Your task to perform on an android device: check storage Image 0: 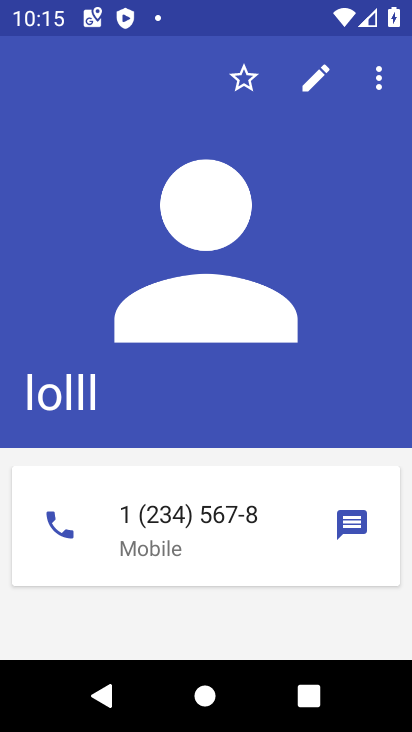
Step 0: press home button
Your task to perform on an android device: check storage Image 1: 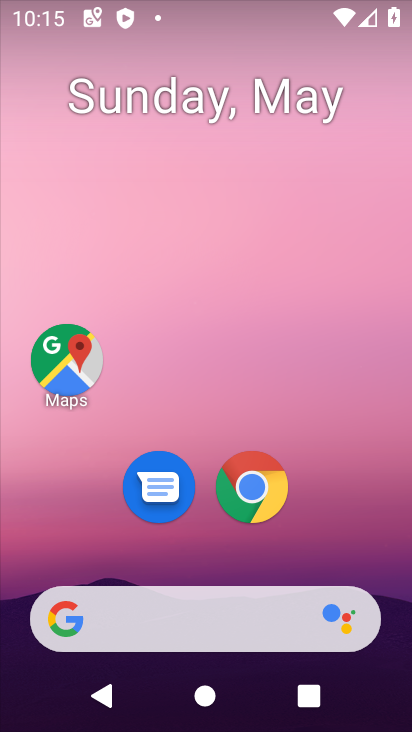
Step 1: drag from (351, 500) to (335, 186)
Your task to perform on an android device: check storage Image 2: 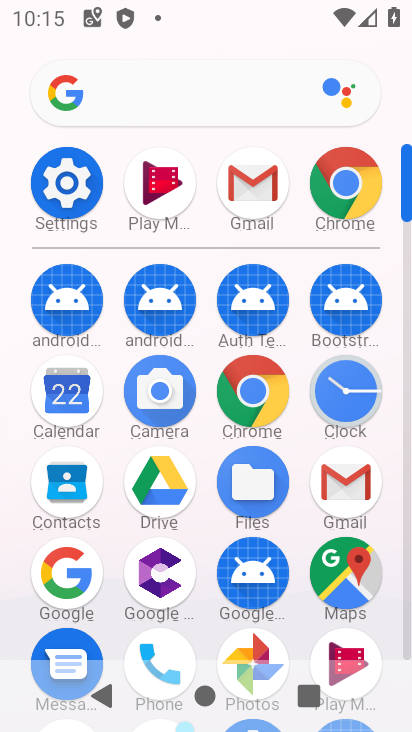
Step 2: click (54, 189)
Your task to perform on an android device: check storage Image 3: 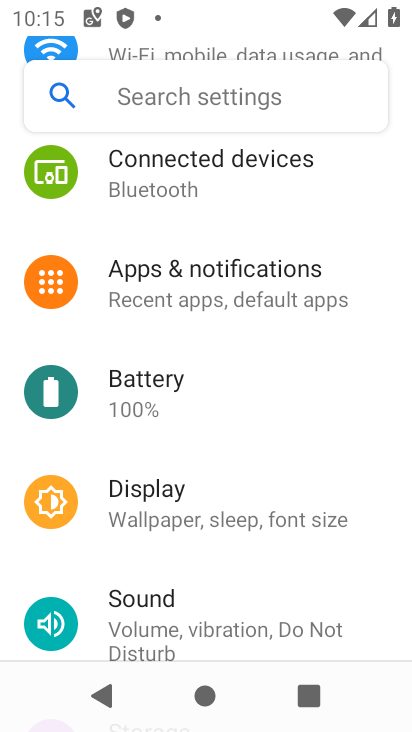
Step 3: drag from (375, 577) to (377, 372)
Your task to perform on an android device: check storage Image 4: 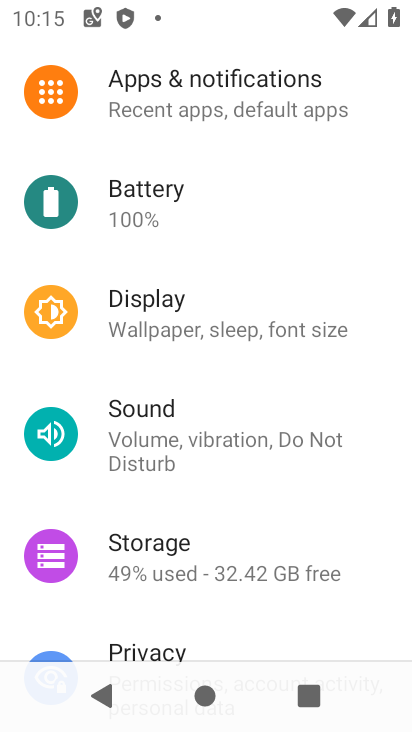
Step 4: drag from (381, 505) to (382, 310)
Your task to perform on an android device: check storage Image 5: 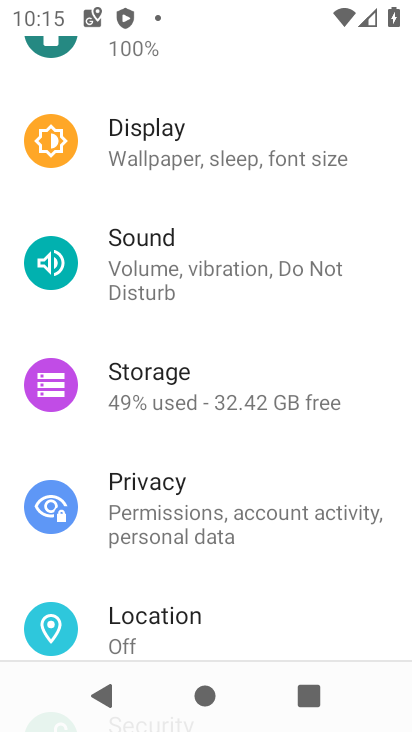
Step 5: drag from (377, 557) to (377, 372)
Your task to perform on an android device: check storage Image 6: 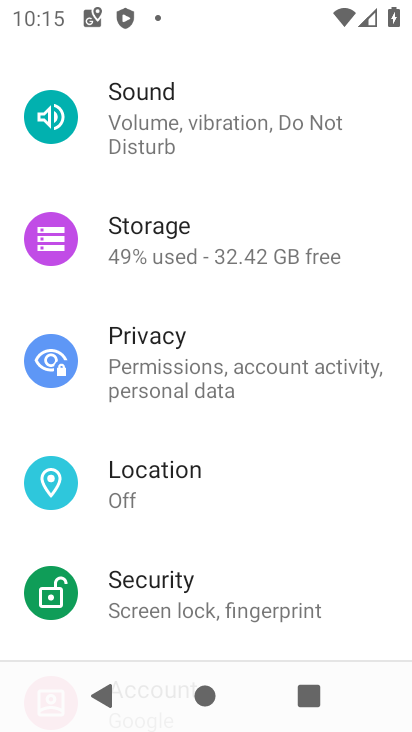
Step 6: drag from (370, 527) to (367, 352)
Your task to perform on an android device: check storage Image 7: 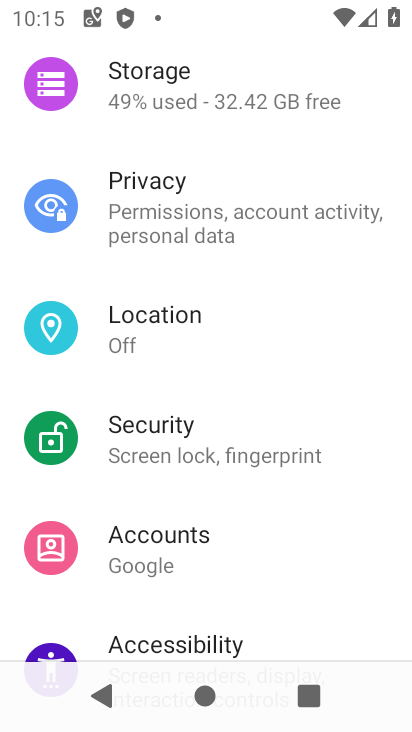
Step 7: drag from (366, 574) to (376, 401)
Your task to perform on an android device: check storage Image 8: 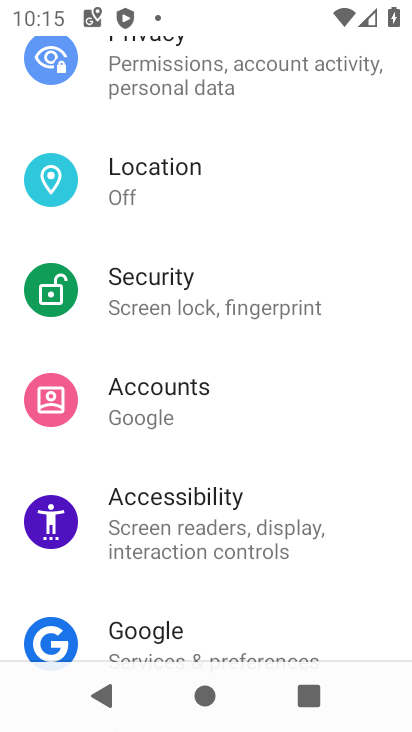
Step 8: drag from (332, 525) to (352, 337)
Your task to perform on an android device: check storage Image 9: 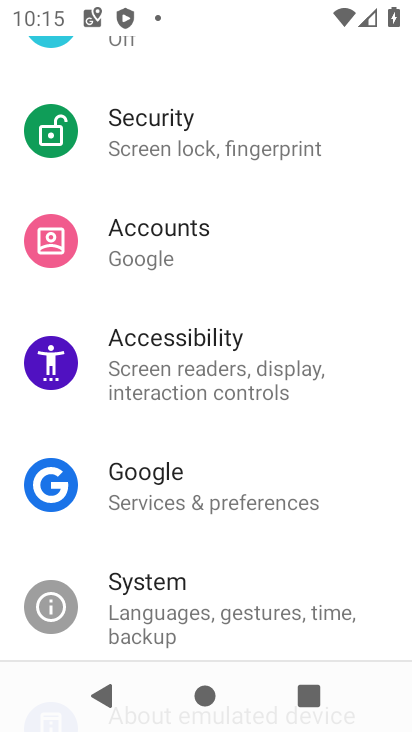
Step 9: drag from (311, 540) to (346, 297)
Your task to perform on an android device: check storage Image 10: 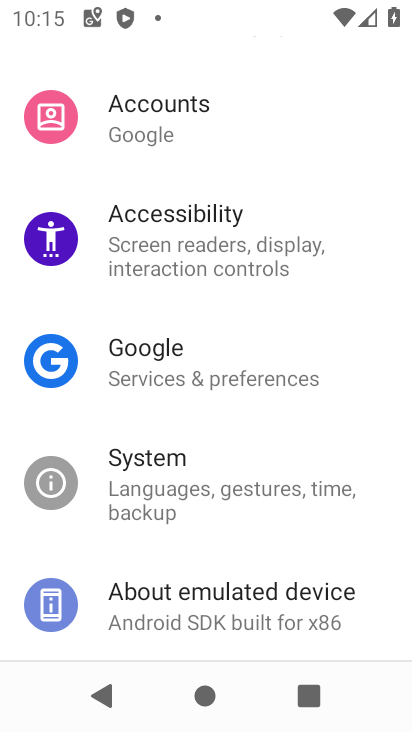
Step 10: drag from (323, 540) to (345, 336)
Your task to perform on an android device: check storage Image 11: 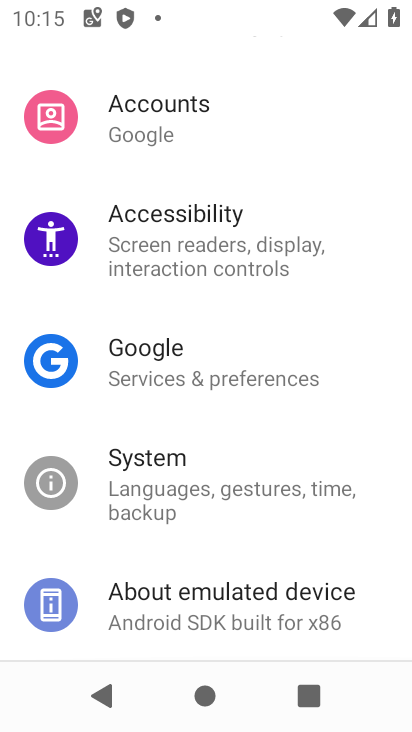
Step 11: drag from (353, 232) to (356, 424)
Your task to perform on an android device: check storage Image 12: 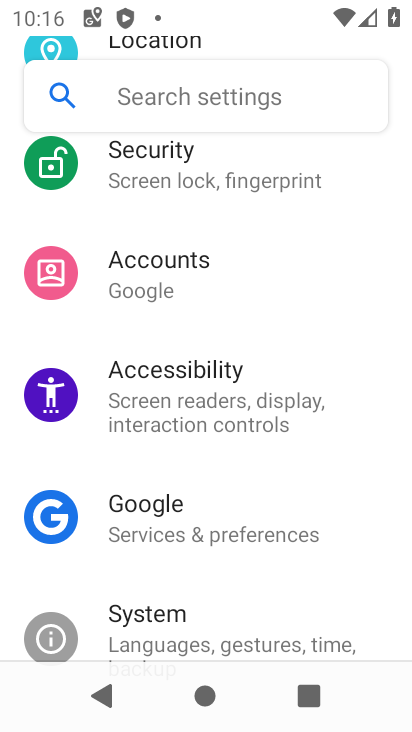
Step 12: drag from (350, 239) to (344, 411)
Your task to perform on an android device: check storage Image 13: 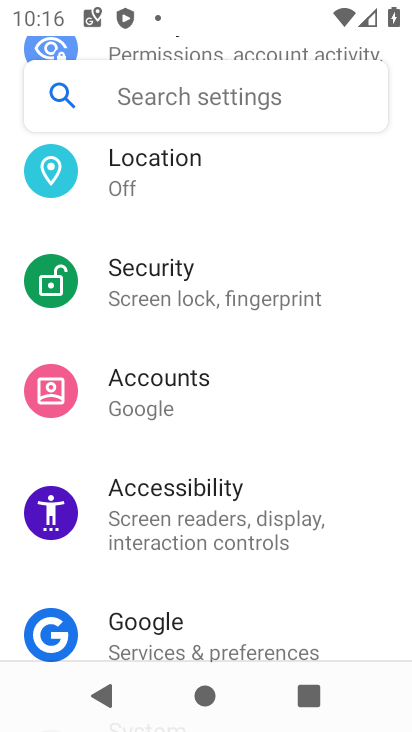
Step 13: drag from (344, 362) to (323, 518)
Your task to perform on an android device: check storage Image 14: 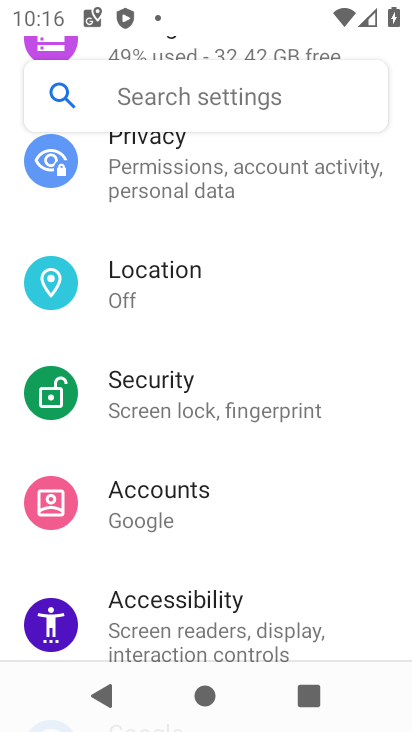
Step 14: drag from (335, 321) to (309, 525)
Your task to perform on an android device: check storage Image 15: 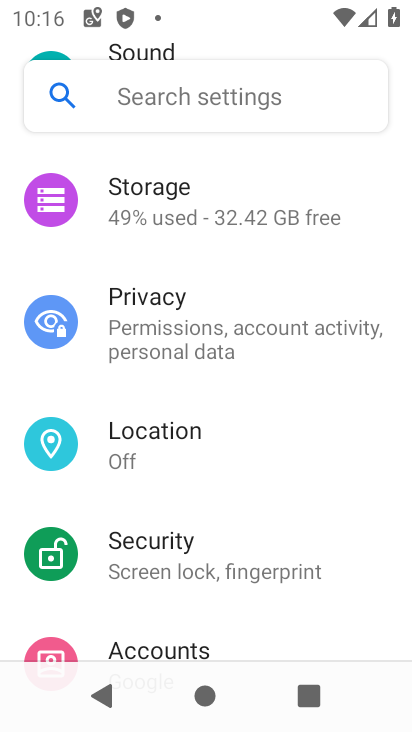
Step 15: click (256, 217)
Your task to perform on an android device: check storage Image 16: 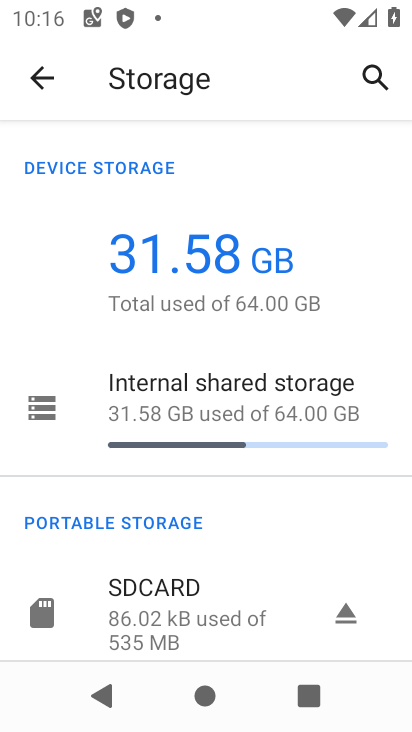
Step 16: task complete